Your task to perform on an android device: read, delete, or share a saved page in the chrome app Image 0: 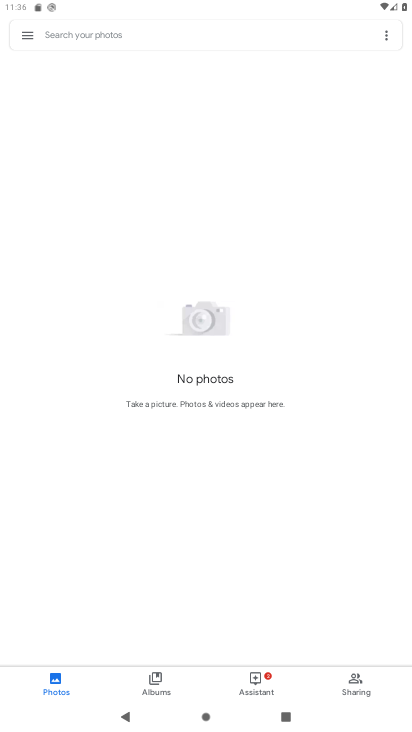
Step 0: press home button
Your task to perform on an android device: read, delete, or share a saved page in the chrome app Image 1: 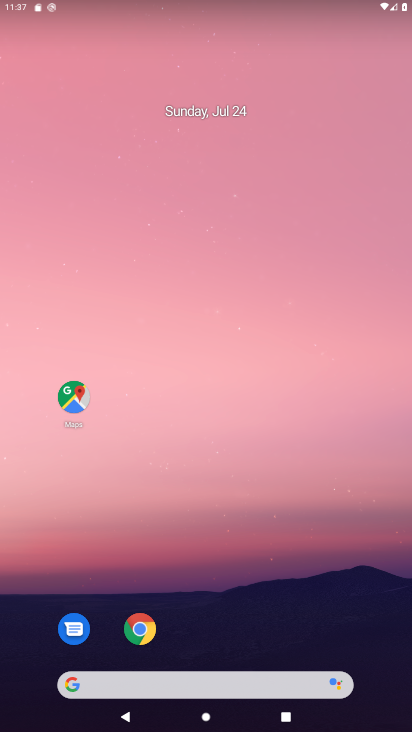
Step 1: drag from (237, 635) to (259, 8)
Your task to perform on an android device: read, delete, or share a saved page in the chrome app Image 2: 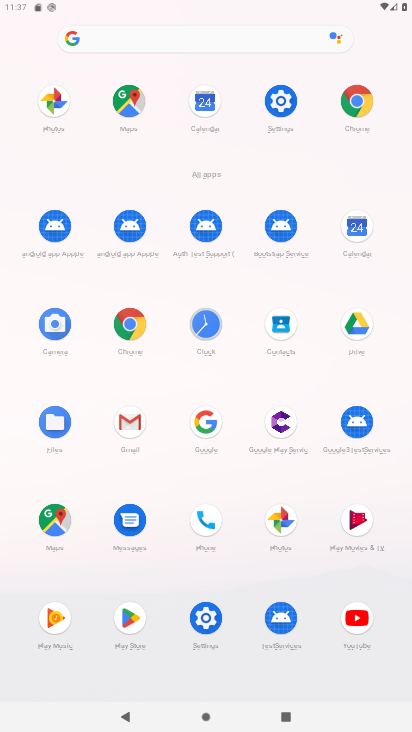
Step 2: click (132, 333)
Your task to perform on an android device: read, delete, or share a saved page in the chrome app Image 3: 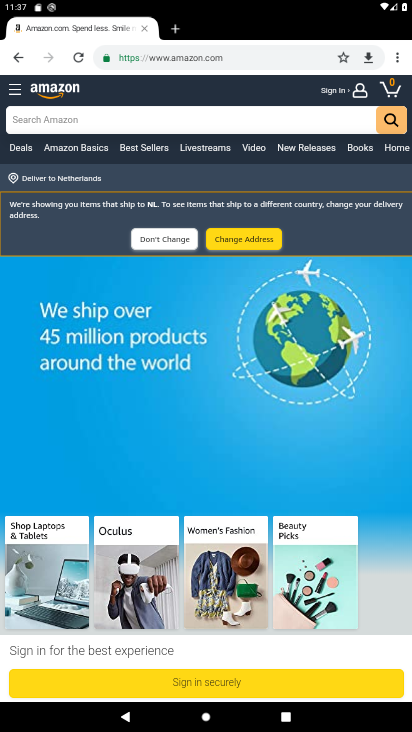
Step 3: click (393, 55)
Your task to perform on an android device: read, delete, or share a saved page in the chrome app Image 4: 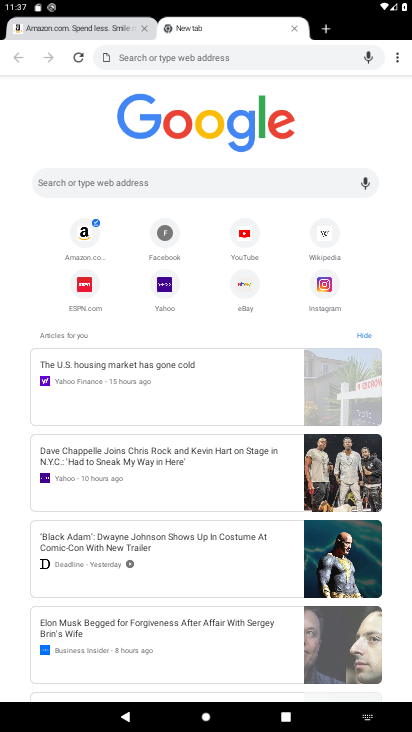
Step 4: click (397, 57)
Your task to perform on an android device: read, delete, or share a saved page in the chrome app Image 5: 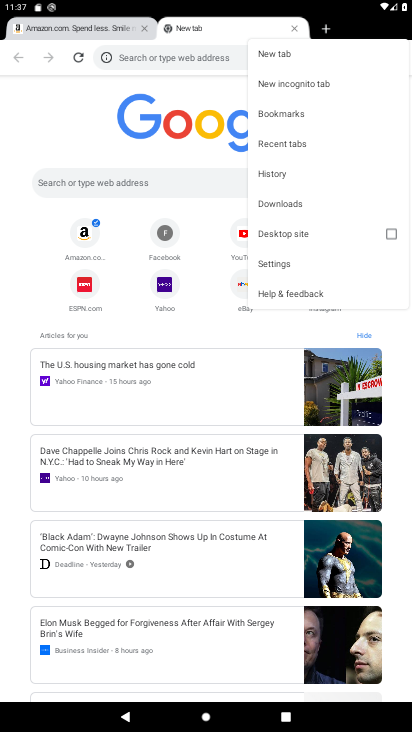
Step 5: click (288, 207)
Your task to perform on an android device: read, delete, or share a saved page in the chrome app Image 6: 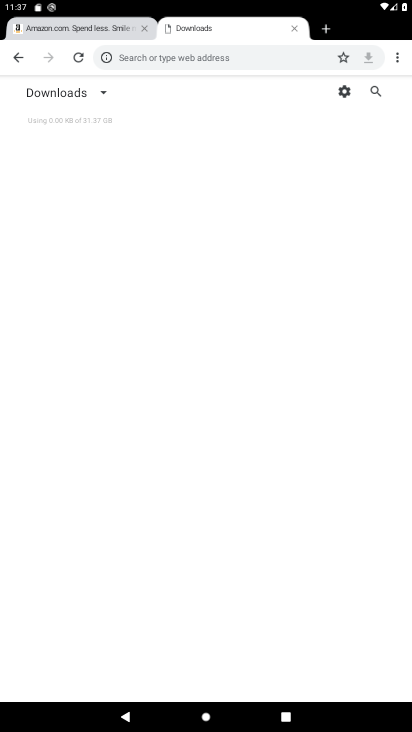
Step 6: task complete